Your task to perform on an android device: change notifications settings Image 0: 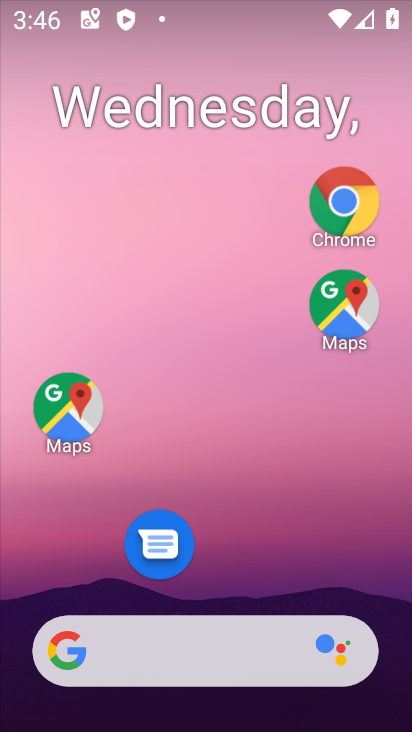
Step 0: drag from (291, 528) to (301, 125)
Your task to perform on an android device: change notifications settings Image 1: 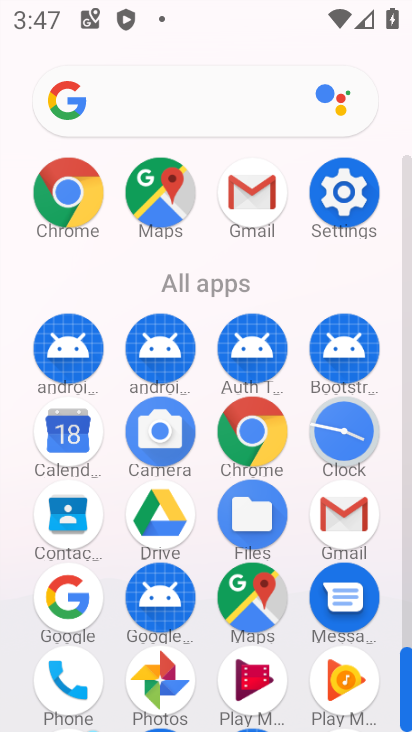
Step 1: click (337, 201)
Your task to perform on an android device: change notifications settings Image 2: 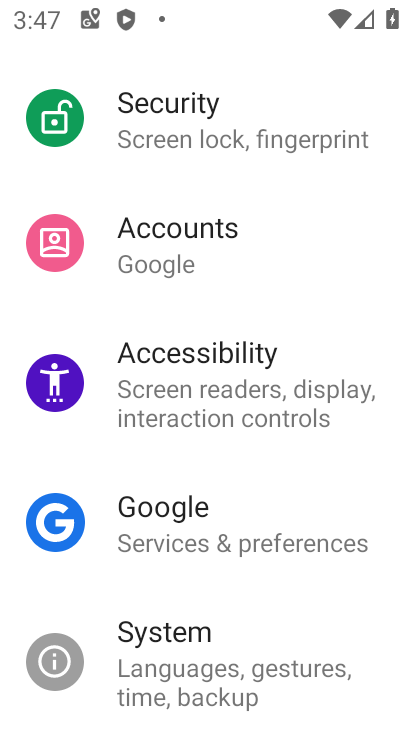
Step 2: drag from (259, 202) to (216, 728)
Your task to perform on an android device: change notifications settings Image 3: 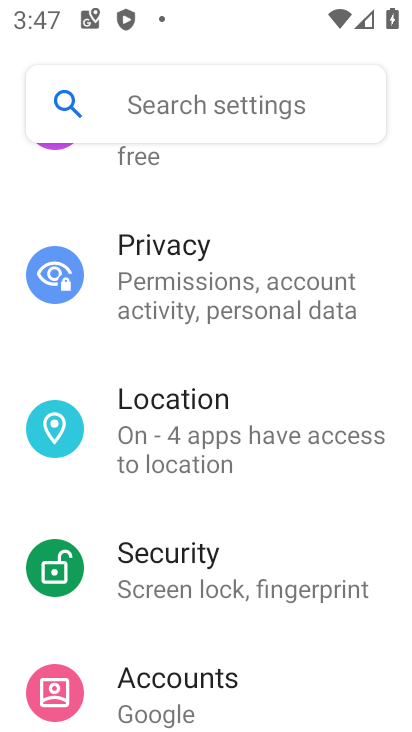
Step 3: drag from (240, 325) to (190, 663)
Your task to perform on an android device: change notifications settings Image 4: 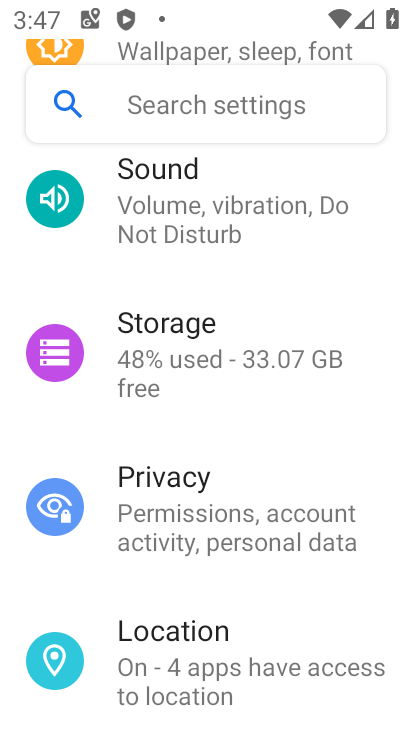
Step 4: drag from (211, 416) to (193, 665)
Your task to perform on an android device: change notifications settings Image 5: 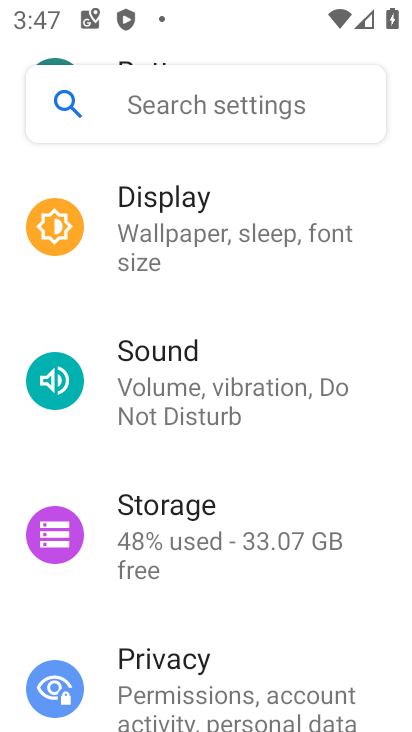
Step 5: drag from (202, 290) to (201, 666)
Your task to perform on an android device: change notifications settings Image 6: 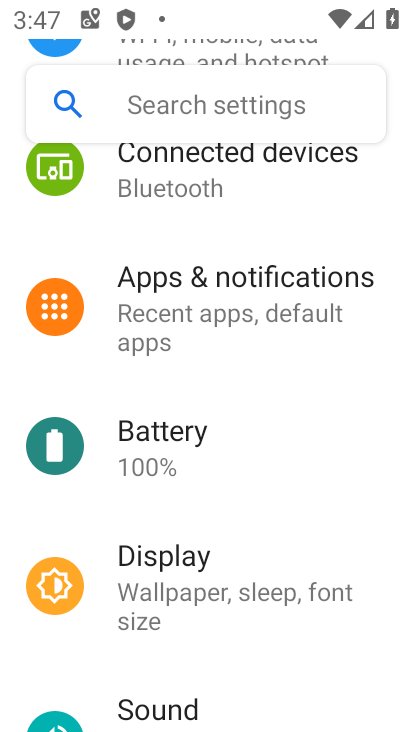
Step 6: click (205, 329)
Your task to perform on an android device: change notifications settings Image 7: 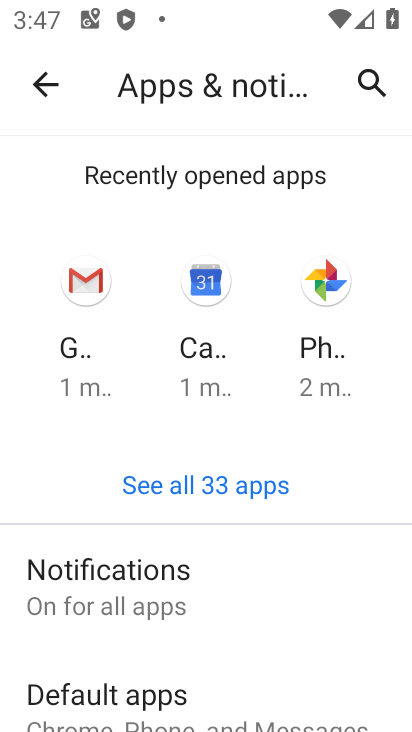
Step 7: click (121, 592)
Your task to perform on an android device: change notifications settings Image 8: 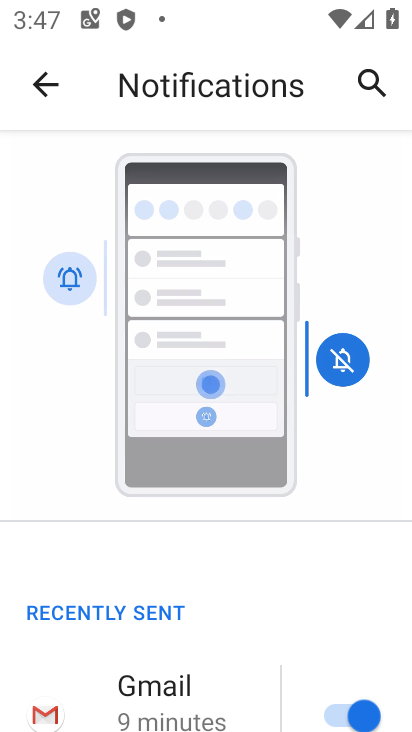
Step 8: drag from (166, 665) to (261, 297)
Your task to perform on an android device: change notifications settings Image 9: 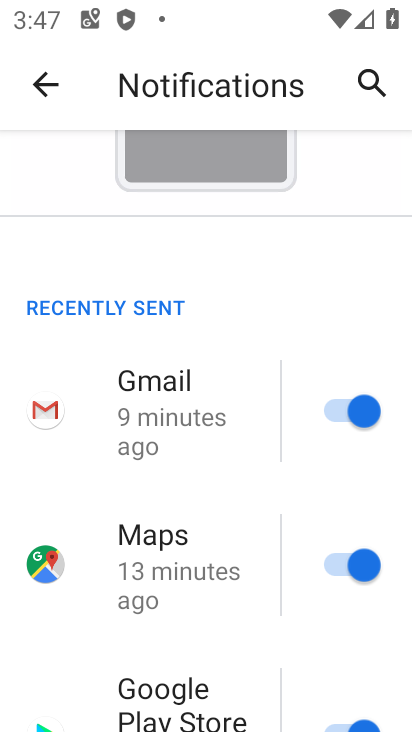
Step 9: drag from (207, 650) to (224, 340)
Your task to perform on an android device: change notifications settings Image 10: 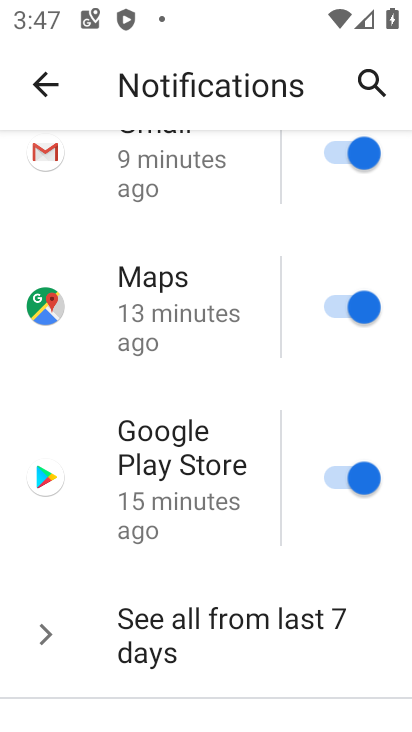
Step 10: drag from (215, 645) to (185, 331)
Your task to perform on an android device: change notifications settings Image 11: 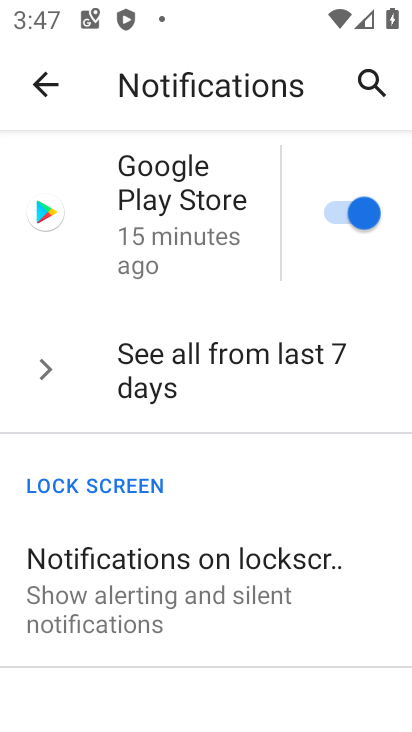
Step 11: click (214, 596)
Your task to perform on an android device: change notifications settings Image 12: 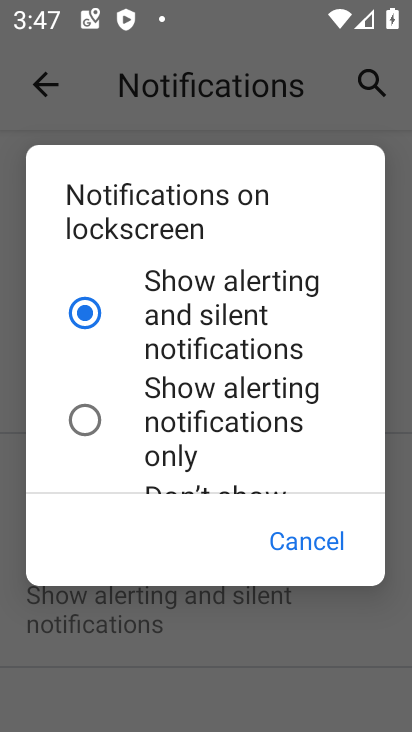
Step 12: drag from (140, 460) to (203, 287)
Your task to perform on an android device: change notifications settings Image 13: 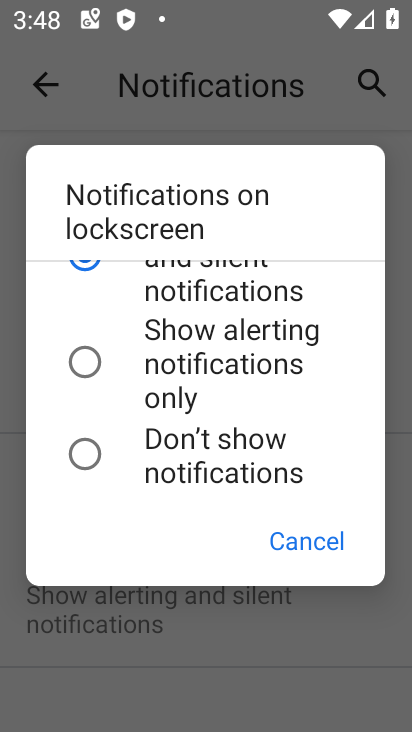
Step 13: click (89, 461)
Your task to perform on an android device: change notifications settings Image 14: 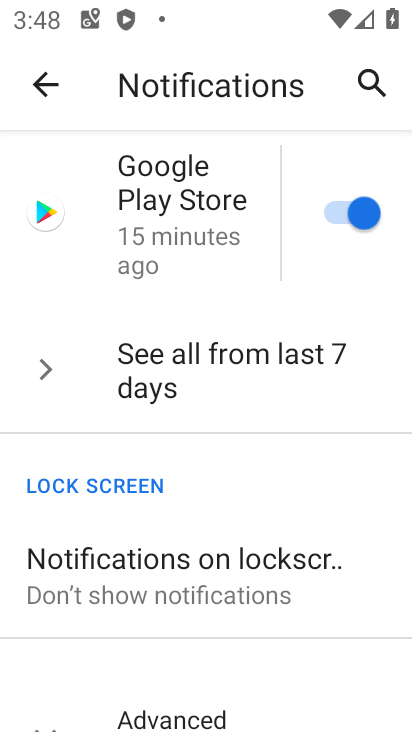
Step 14: task complete